Your task to perform on an android device: move a message to another label in the gmail app Image 0: 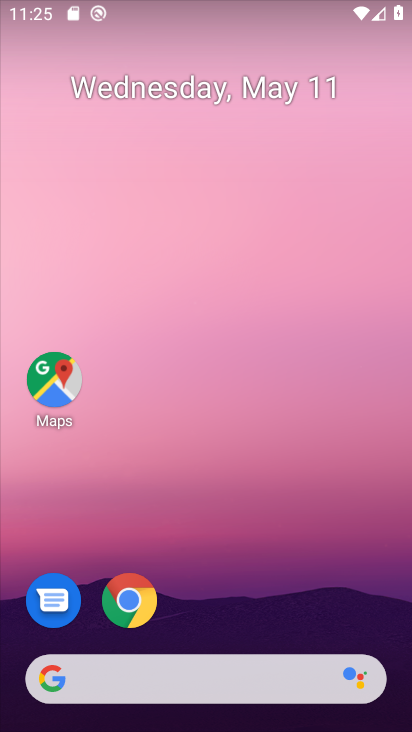
Step 0: drag from (181, 633) to (370, 156)
Your task to perform on an android device: move a message to another label in the gmail app Image 1: 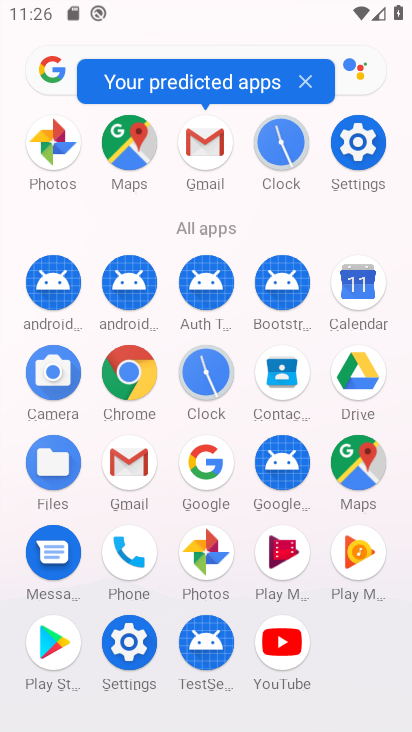
Step 1: click (141, 477)
Your task to perform on an android device: move a message to another label in the gmail app Image 2: 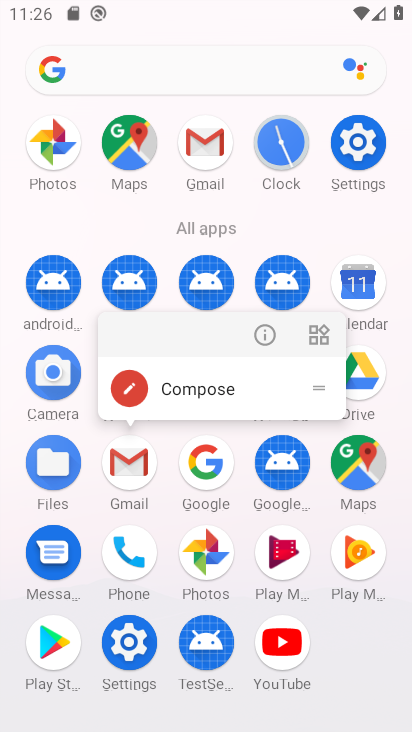
Step 2: click (136, 465)
Your task to perform on an android device: move a message to another label in the gmail app Image 3: 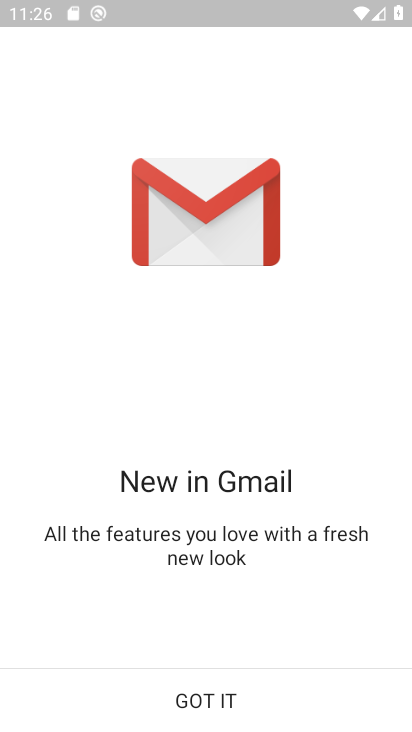
Step 3: click (206, 696)
Your task to perform on an android device: move a message to another label in the gmail app Image 4: 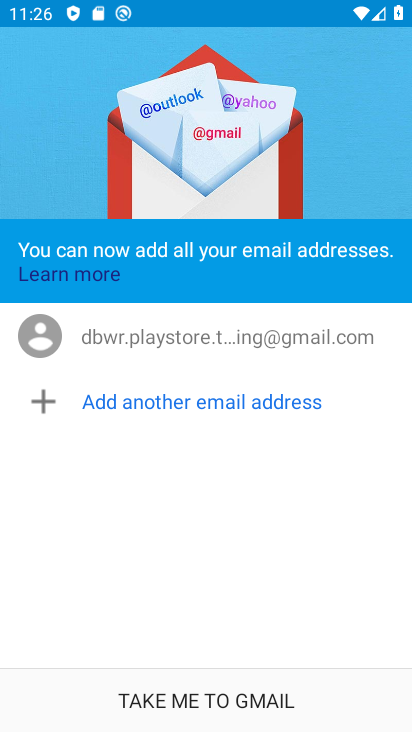
Step 4: click (273, 682)
Your task to perform on an android device: move a message to another label in the gmail app Image 5: 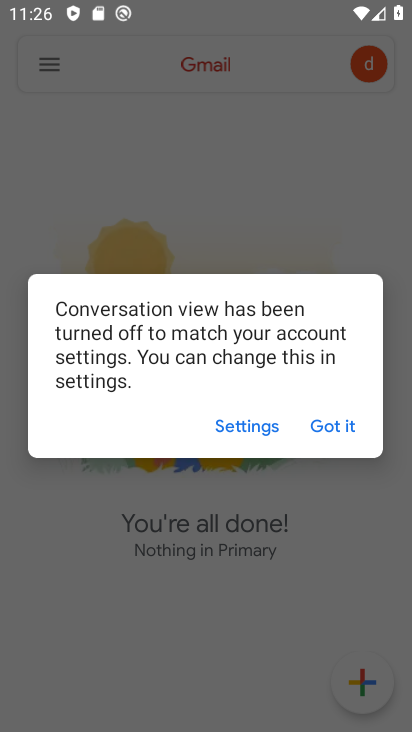
Step 5: click (336, 414)
Your task to perform on an android device: move a message to another label in the gmail app Image 6: 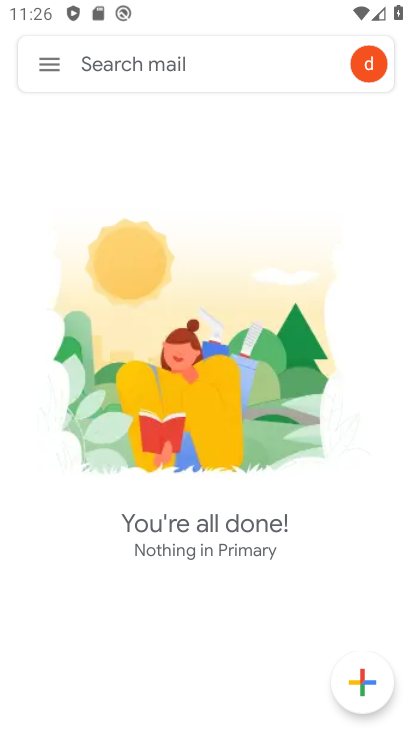
Step 6: click (65, 51)
Your task to perform on an android device: move a message to another label in the gmail app Image 7: 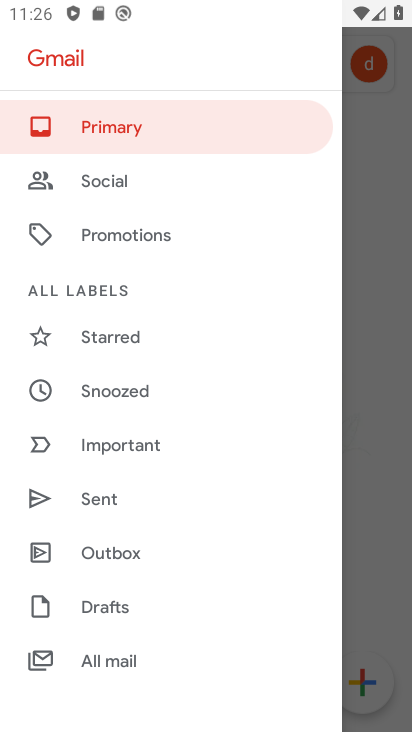
Step 7: drag from (140, 605) to (224, 286)
Your task to perform on an android device: move a message to another label in the gmail app Image 8: 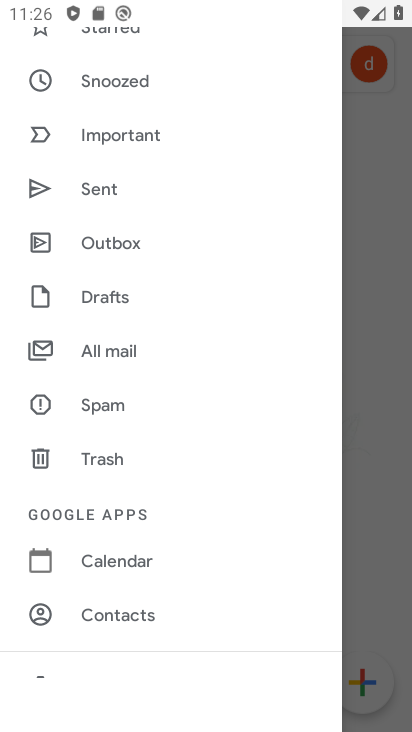
Step 8: click (179, 353)
Your task to perform on an android device: move a message to another label in the gmail app Image 9: 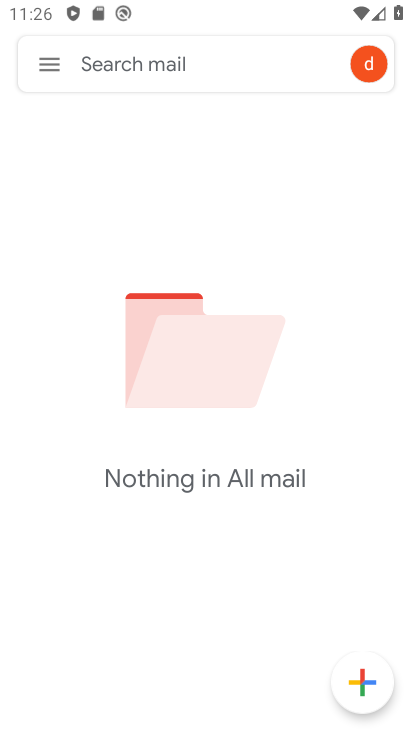
Step 9: task complete